Your task to perform on an android device: What is the news today? Image 0: 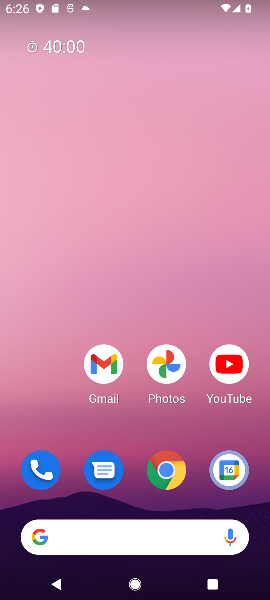
Step 0: press home button
Your task to perform on an android device: What is the news today? Image 1: 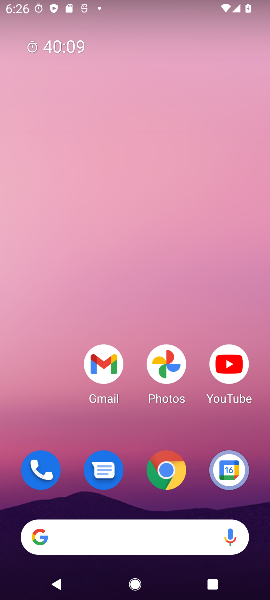
Step 1: drag from (49, 403) to (119, 45)
Your task to perform on an android device: What is the news today? Image 2: 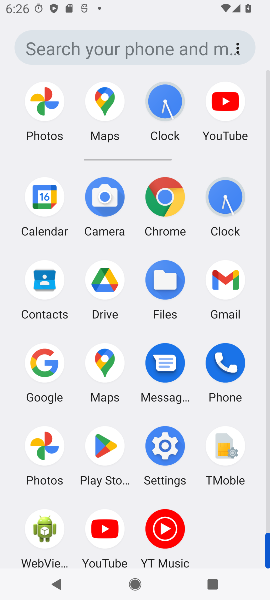
Step 2: click (164, 192)
Your task to perform on an android device: What is the news today? Image 3: 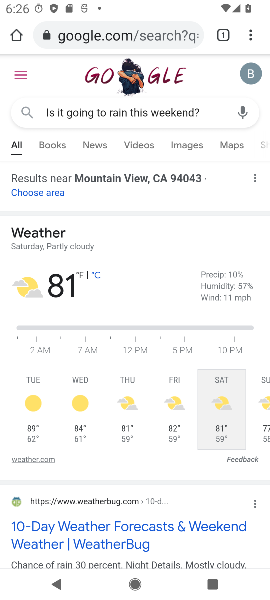
Step 3: click (111, 35)
Your task to perform on an android device: What is the news today? Image 4: 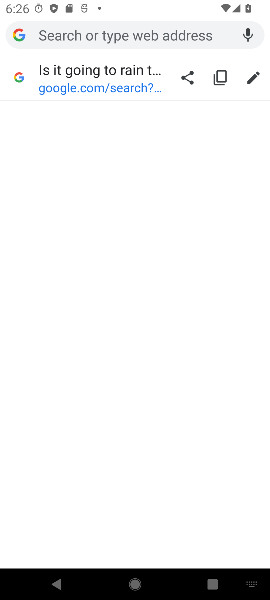
Step 4: type "What is the news today?"
Your task to perform on an android device: What is the news today? Image 5: 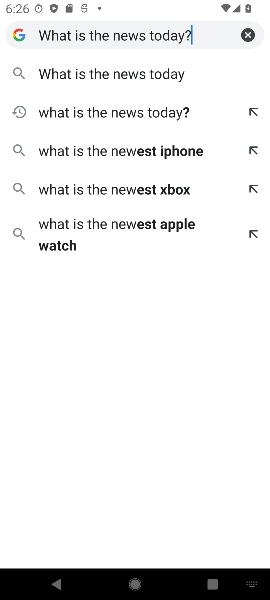
Step 5: type ""
Your task to perform on an android device: What is the news today? Image 6: 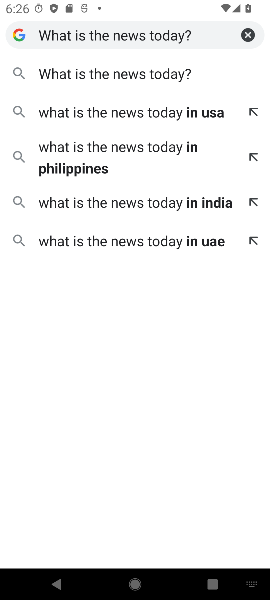
Step 6: click (45, 74)
Your task to perform on an android device: What is the news today? Image 7: 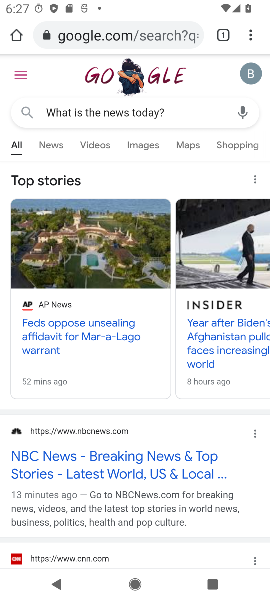
Step 7: task complete